Your task to perform on an android device: toggle sleep mode Image 0: 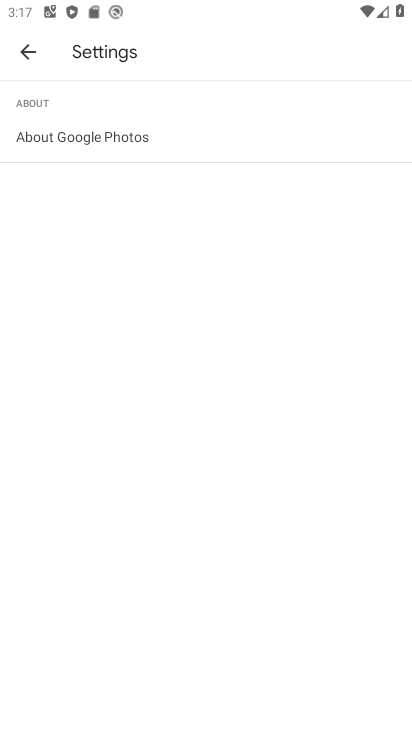
Step 0: click (31, 46)
Your task to perform on an android device: toggle sleep mode Image 1: 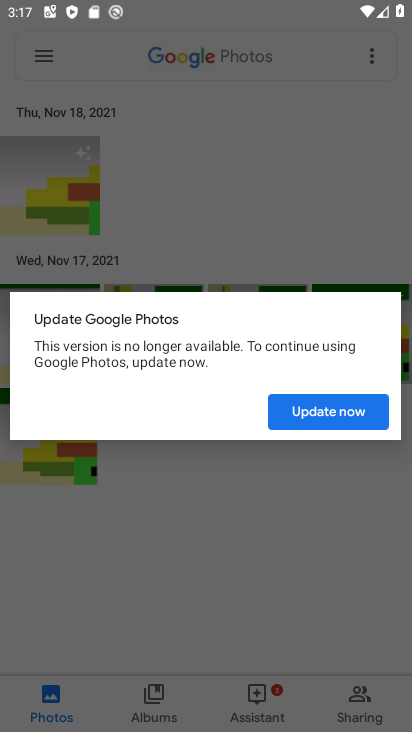
Step 1: press home button
Your task to perform on an android device: toggle sleep mode Image 2: 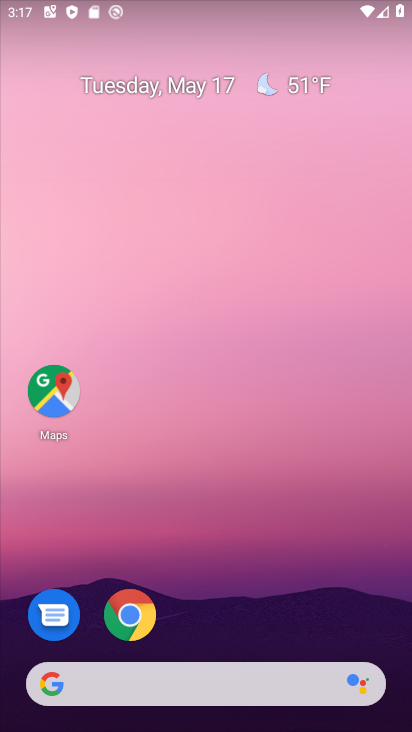
Step 2: drag from (208, 630) to (250, 371)
Your task to perform on an android device: toggle sleep mode Image 3: 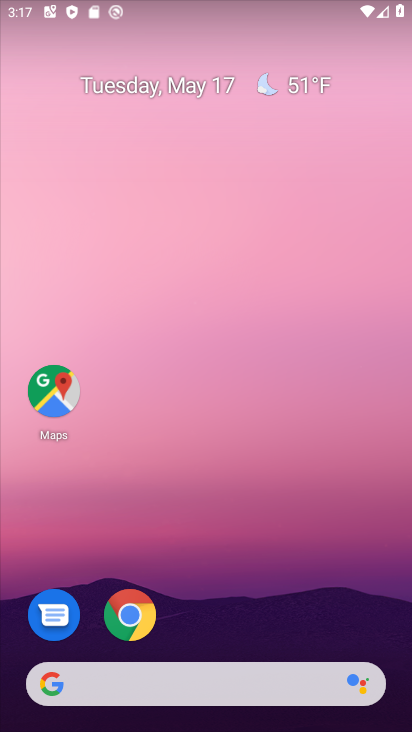
Step 3: drag from (231, 639) to (239, 53)
Your task to perform on an android device: toggle sleep mode Image 4: 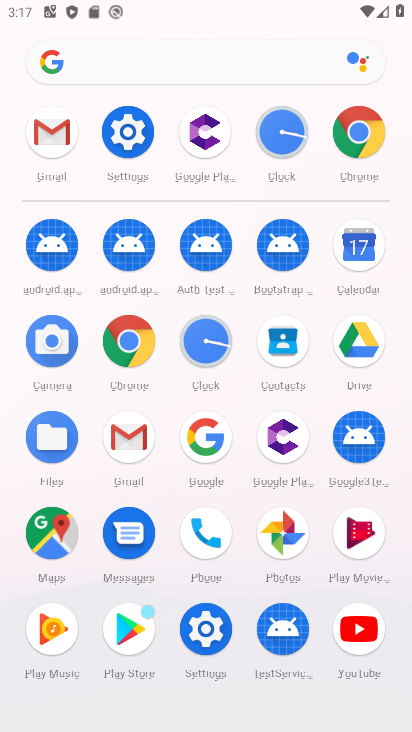
Step 4: click (128, 128)
Your task to perform on an android device: toggle sleep mode Image 5: 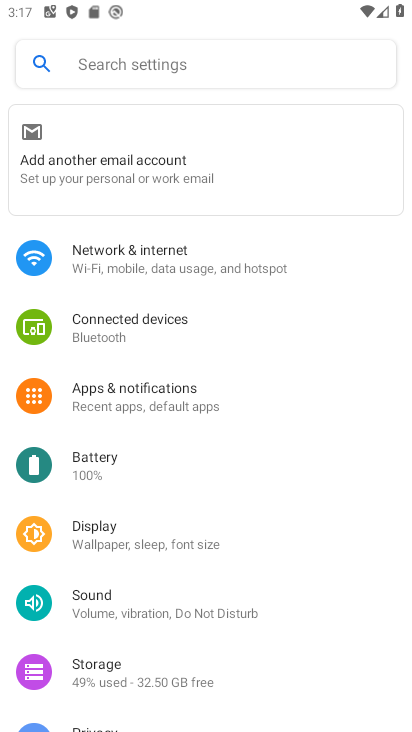
Step 5: click (135, 527)
Your task to perform on an android device: toggle sleep mode Image 6: 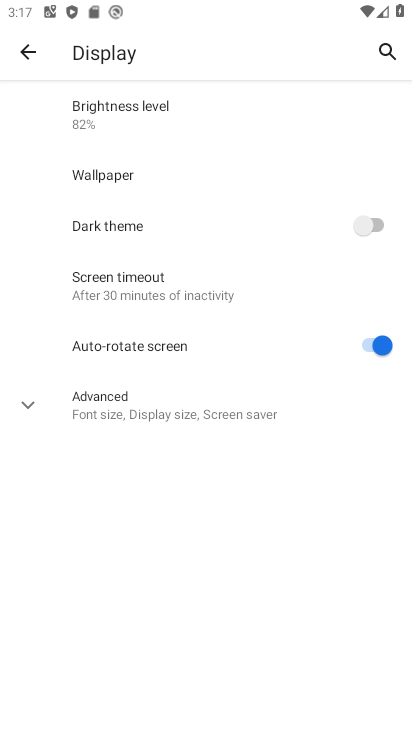
Step 6: click (10, 411)
Your task to perform on an android device: toggle sleep mode Image 7: 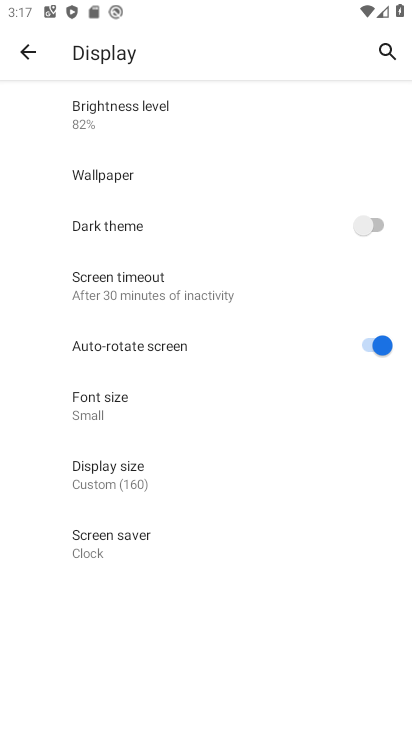
Step 7: task complete